Your task to perform on an android device: Go to Amazon Image 0: 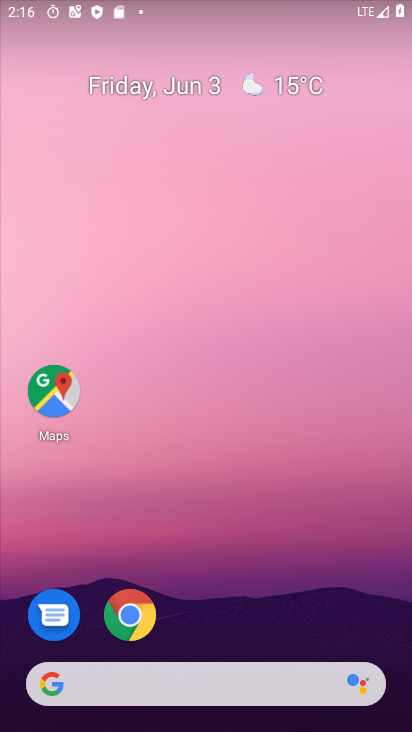
Step 0: drag from (188, 514) to (311, 241)
Your task to perform on an android device: Go to Amazon Image 1: 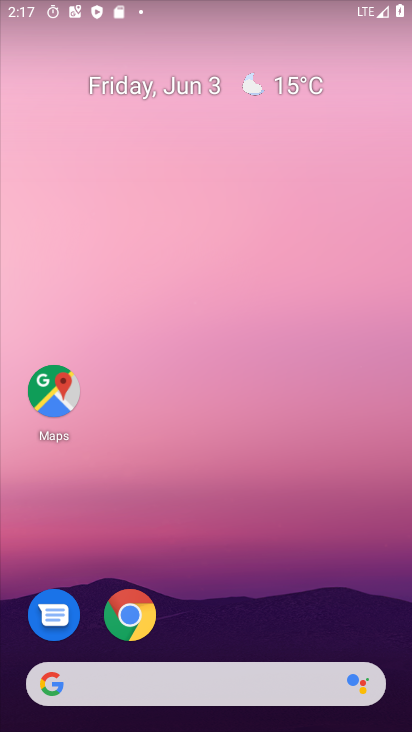
Step 1: drag from (214, 590) to (250, 2)
Your task to perform on an android device: Go to Amazon Image 2: 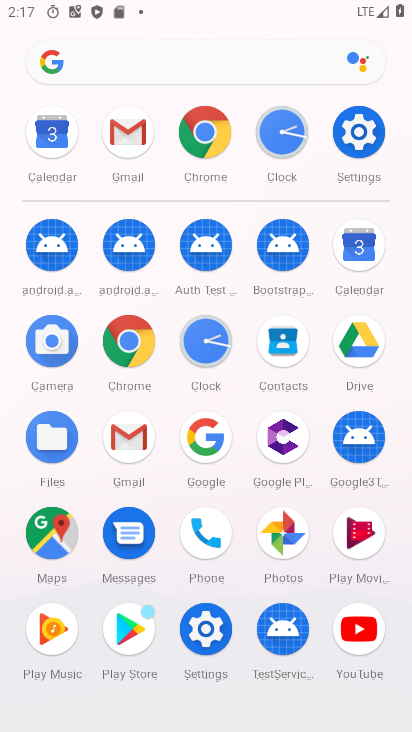
Step 2: click (115, 335)
Your task to perform on an android device: Go to Amazon Image 3: 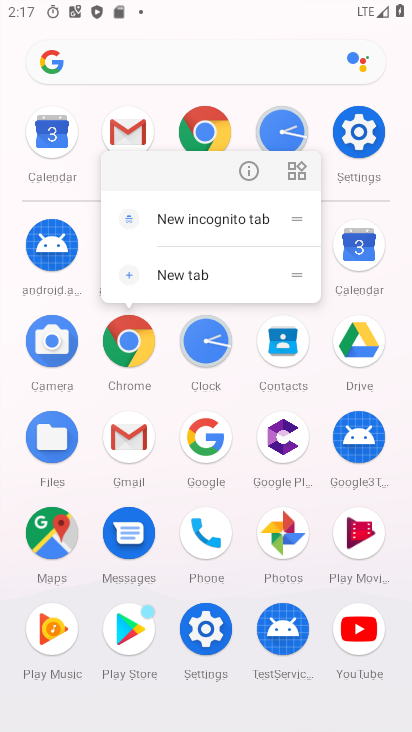
Step 3: click (238, 164)
Your task to perform on an android device: Go to Amazon Image 4: 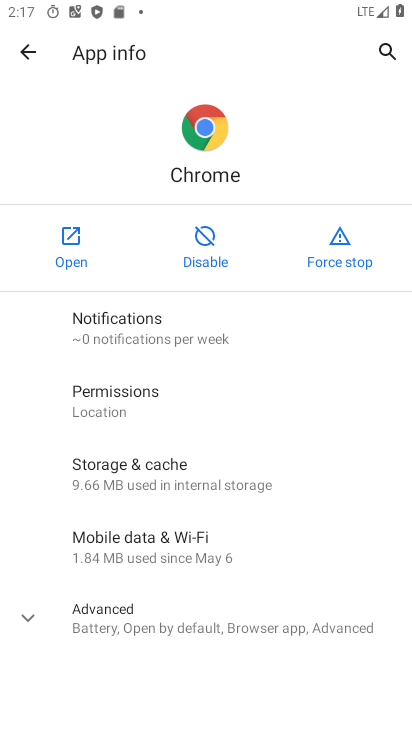
Step 4: click (69, 249)
Your task to perform on an android device: Go to Amazon Image 5: 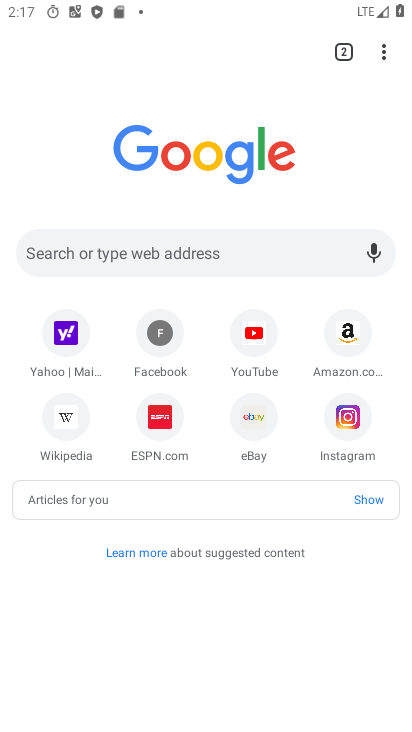
Step 5: click (381, 67)
Your task to perform on an android device: Go to Amazon Image 6: 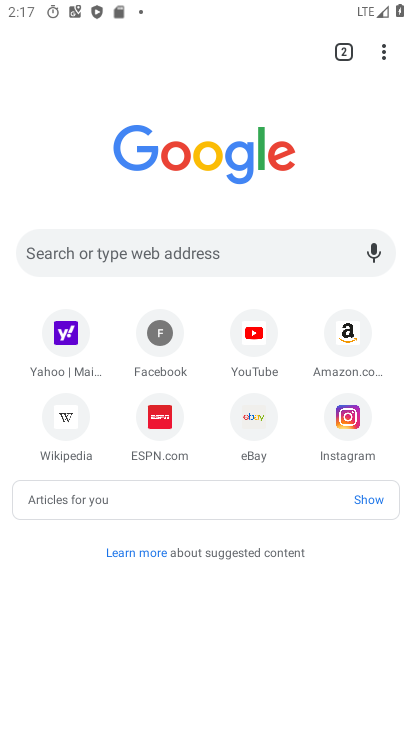
Step 6: click (341, 331)
Your task to perform on an android device: Go to Amazon Image 7: 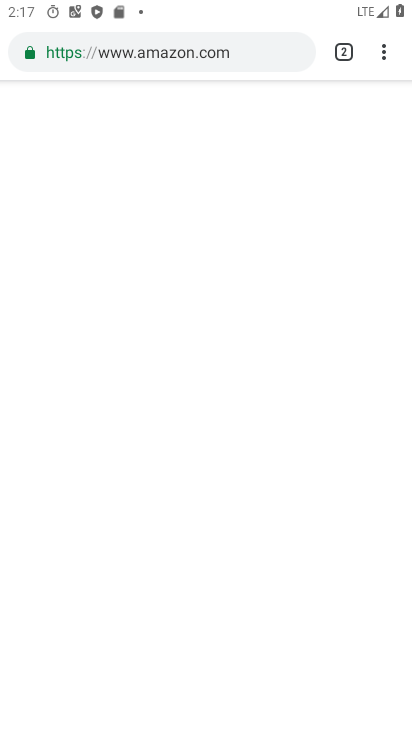
Step 7: task complete